Your task to perform on an android device: Play the last video I watched on Youtube Image 0: 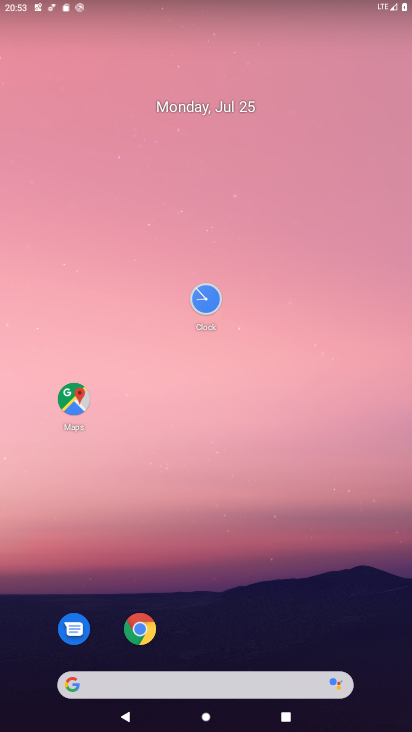
Step 0: drag from (204, 641) to (212, 7)
Your task to perform on an android device: Play the last video I watched on Youtube Image 1: 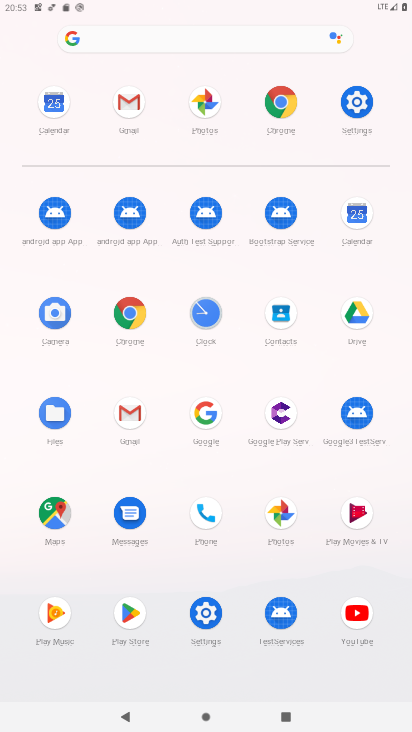
Step 1: click (360, 624)
Your task to perform on an android device: Play the last video I watched on Youtube Image 2: 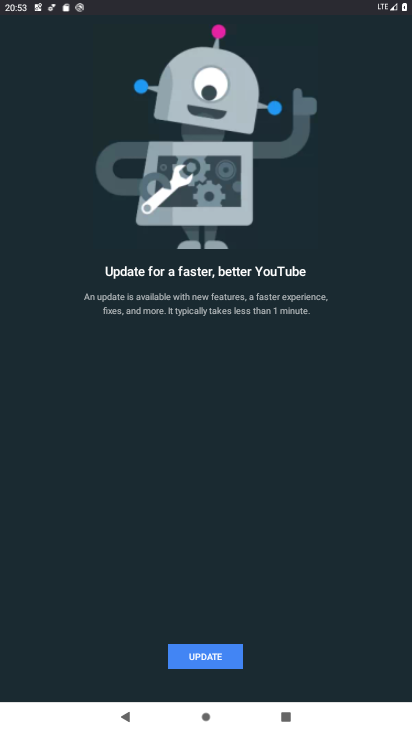
Step 2: click (186, 647)
Your task to perform on an android device: Play the last video I watched on Youtube Image 3: 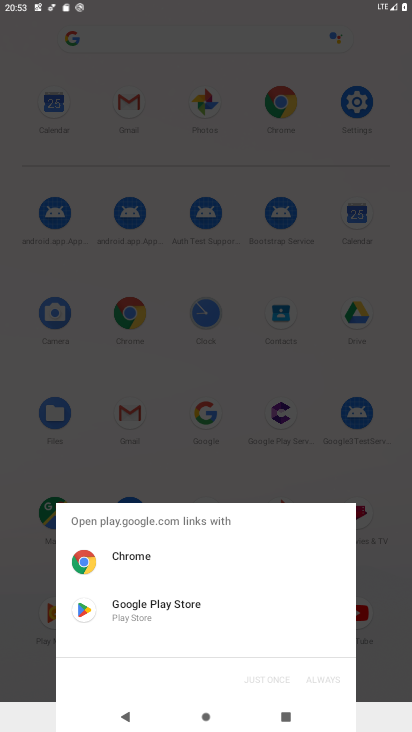
Step 3: click (137, 619)
Your task to perform on an android device: Play the last video I watched on Youtube Image 4: 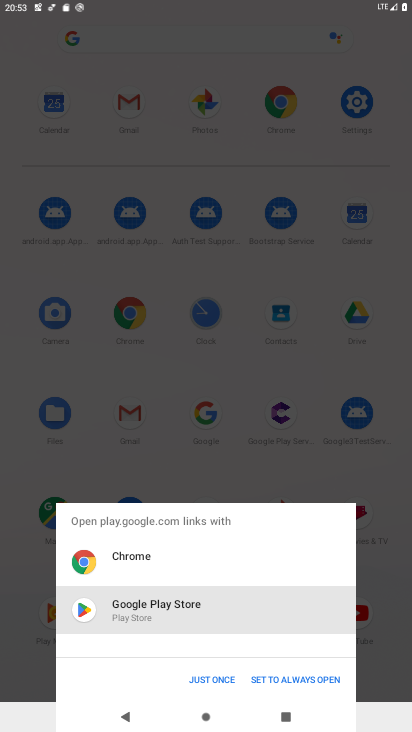
Step 4: click (212, 681)
Your task to perform on an android device: Play the last video I watched on Youtube Image 5: 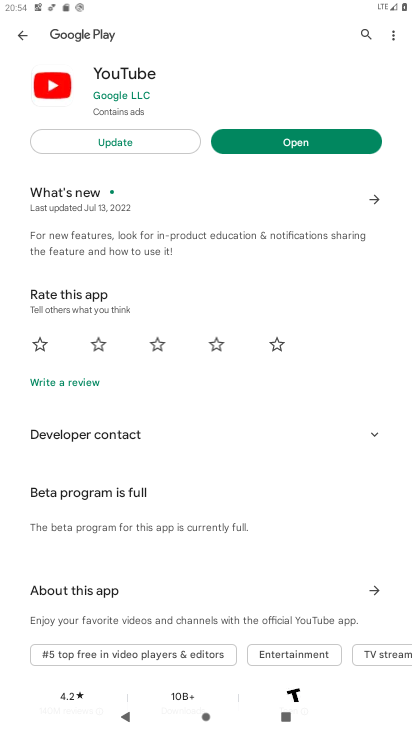
Step 5: click (149, 146)
Your task to perform on an android device: Play the last video I watched on Youtube Image 6: 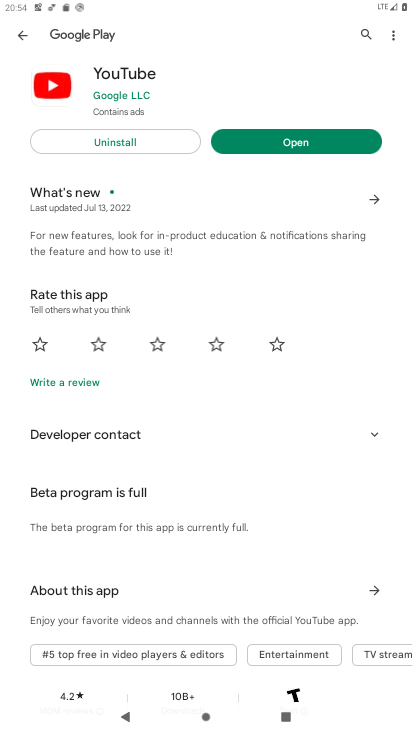
Step 6: click (289, 142)
Your task to perform on an android device: Play the last video I watched on Youtube Image 7: 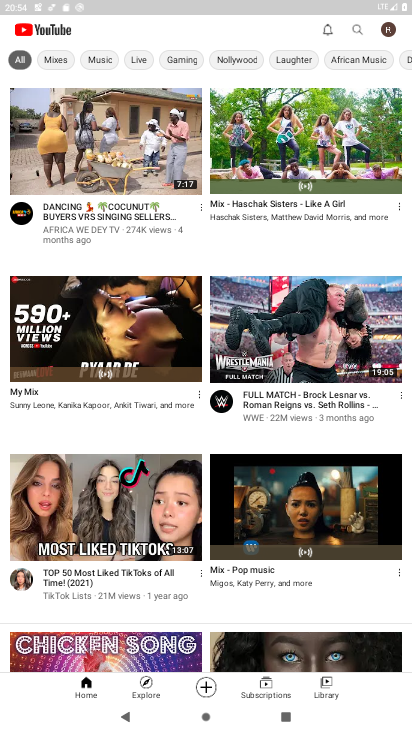
Step 7: click (322, 682)
Your task to perform on an android device: Play the last video I watched on Youtube Image 8: 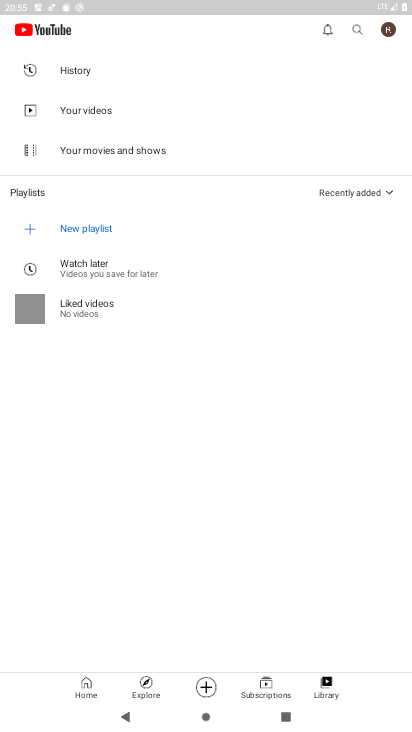
Step 8: click (75, 69)
Your task to perform on an android device: Play the last video I watched on Youtube Image 9: 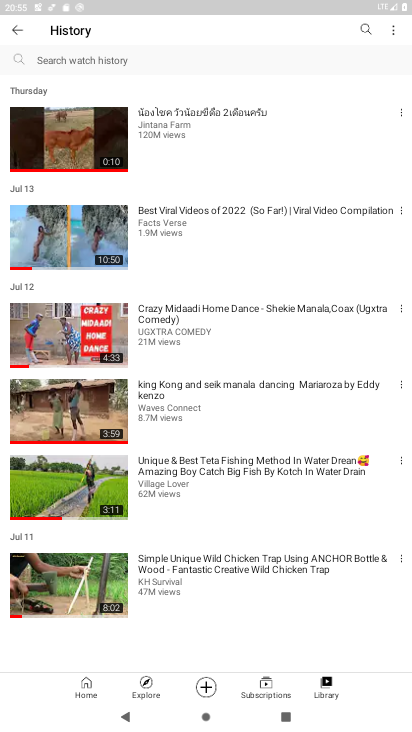
Step 9: click (153, 134)
Your task to perform on an android device: Play the last video I watched on Youtube Image 10: 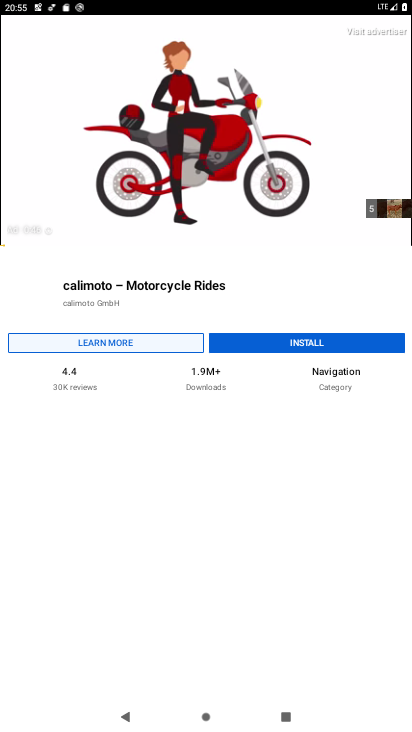
Step 10: task complete